Your task to perform on an android device: set the stopwatch Image 0: 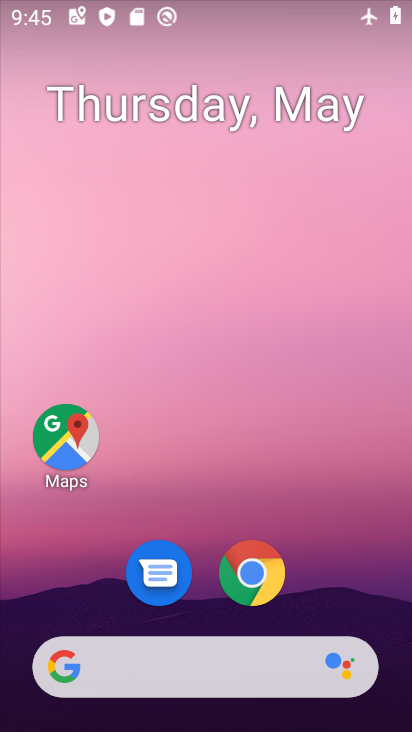
Step 0: drag from (207, 526) to (207, 192)
Your task to perform on an android device: set the stopwatch Image 1: 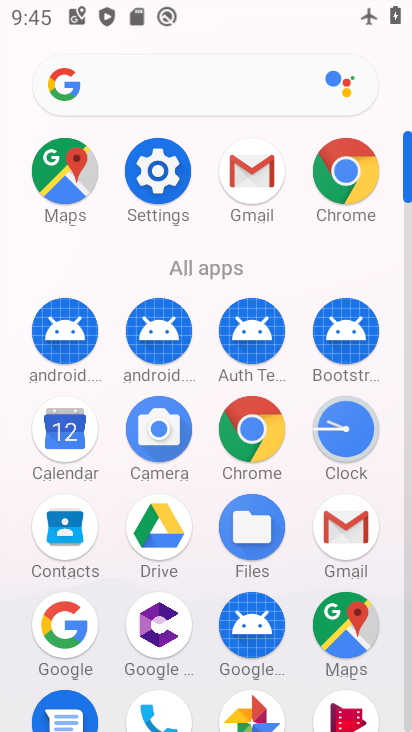
Step 1: click (354, 425)
Your task to perform on an android device: set the stopwatch Image 2: 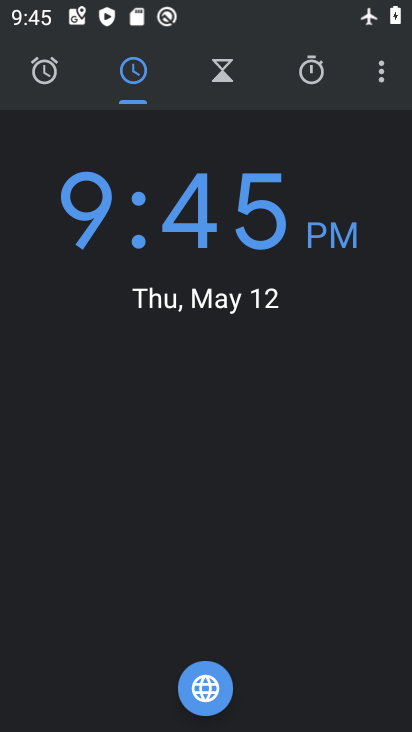
Step 2: click (305, 70)
Your task to perform on an android device: set the stopwatch Image 3: 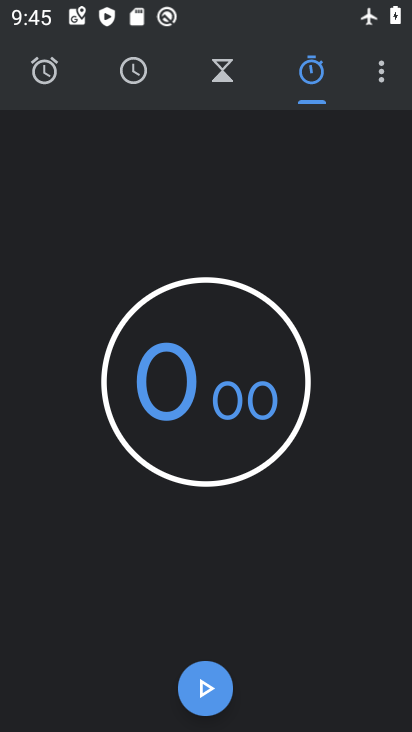
Step 3: task complete